Your task to perform on an android device: toggle notification dots Image 0: 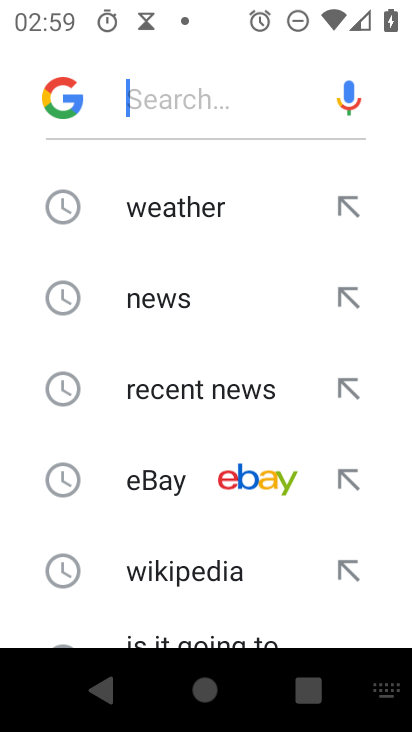
Step 0: press home button
Your task to perform on an android device: toggle notification dots Image 1: 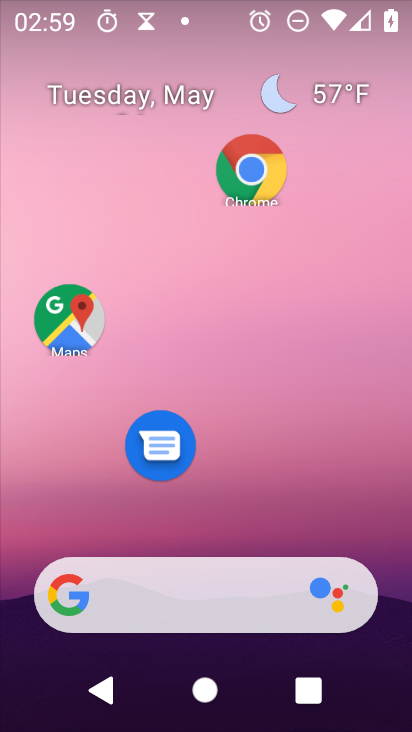
Step 1: drag from (218, 723) to (224, 167)
Your task to perform on an android device: toggle notification dots Image 2: 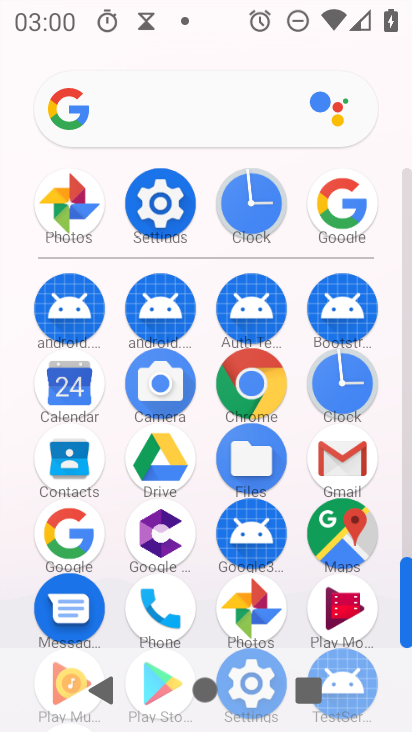
Step 2: click (165, 197)
Your task to perform on an android device: toggle notification dots Image 3: 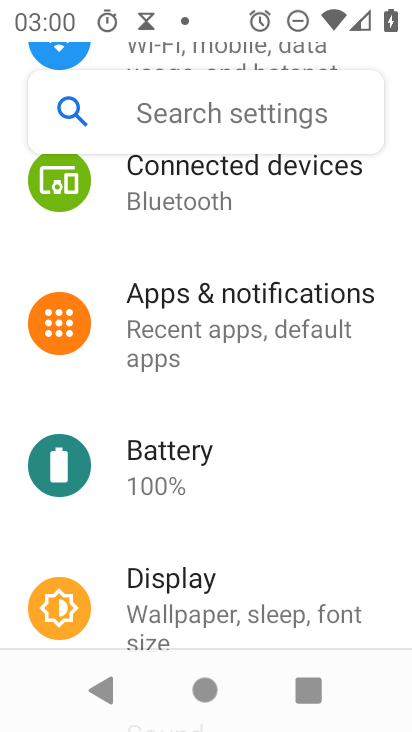
Step 3: click (234, 303)
Your task to perform on an android device: toggle notification dots Image 4: 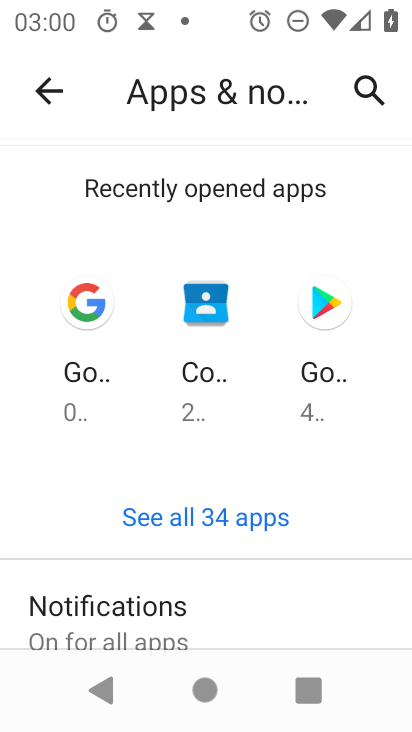
Step 4: drag from (200, 598) to (205, 264)
Your task to perform on an android device: toggle notification dots Image 5: 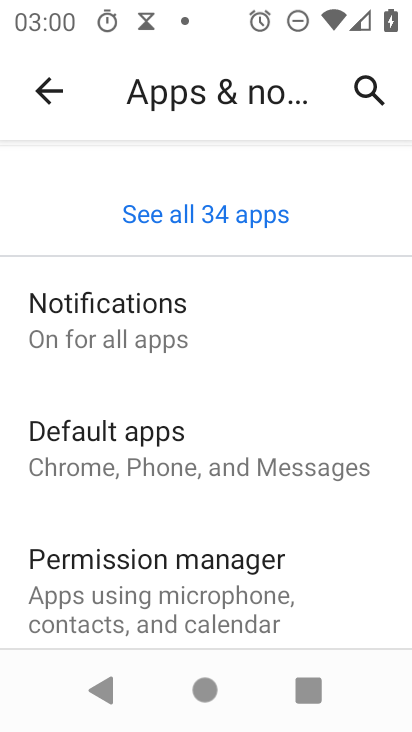
Step 5: click (107, 322)
Your task to perform on an android device: toggle notification dots Image 6: 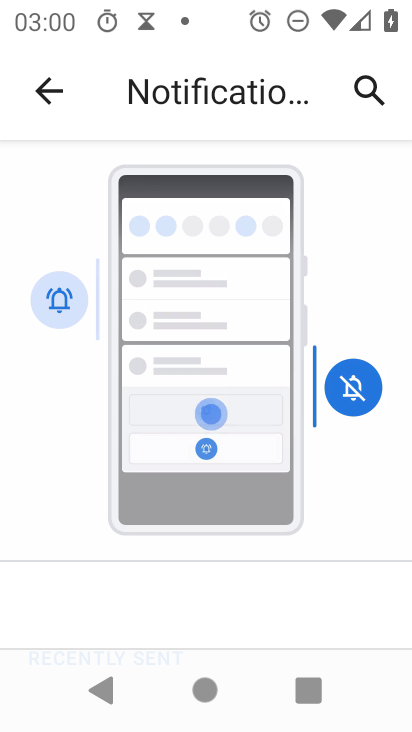
Step 6: drag from (167, 630) to (172, 311)
Your task to perform on an android device: toggle notification dots Image 7: 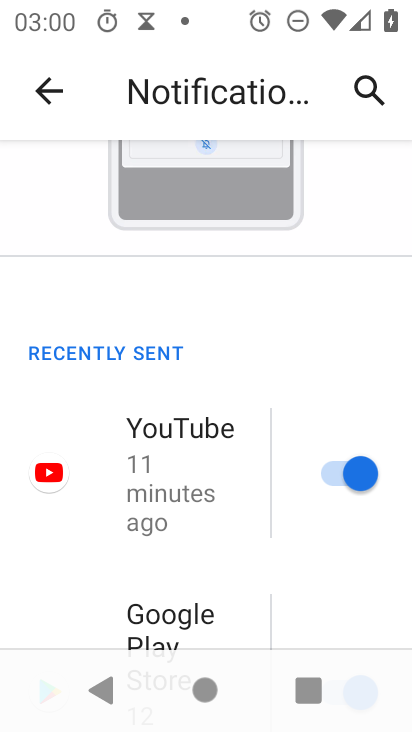
Step 7: drag from (190, 614) to (190, 299)
Your task to perform on an android device: toggle notification dots Image 8: 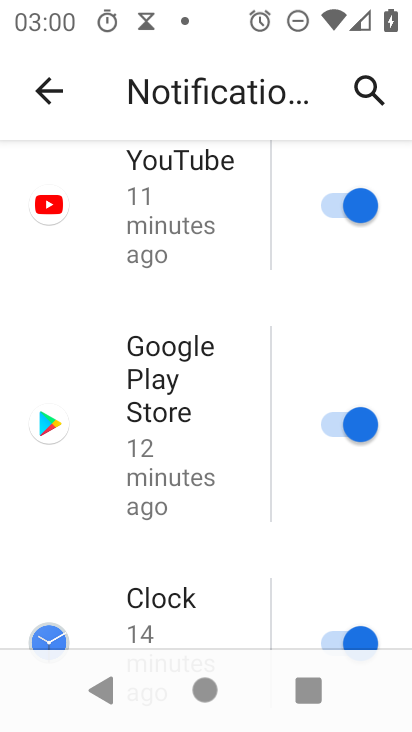
Step 8: drag from (204, 630) to (204, 357)
Your task to perform on an android device: toggle notification dots Image 9: 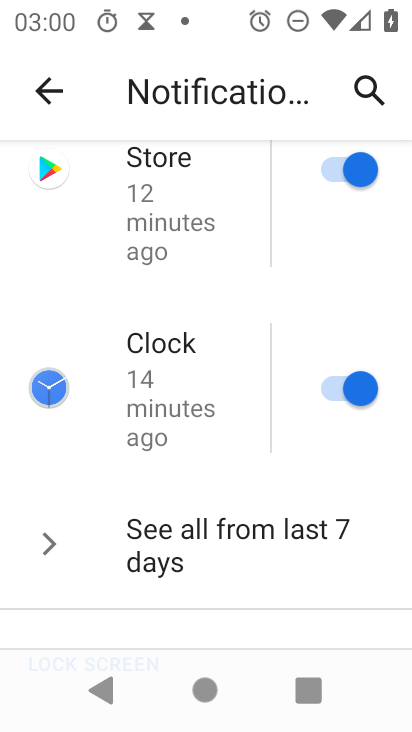
Step 9: drag from (227, 609) to (226, 481)
Your task to perform on an android device: toggle notification dots Image 10: 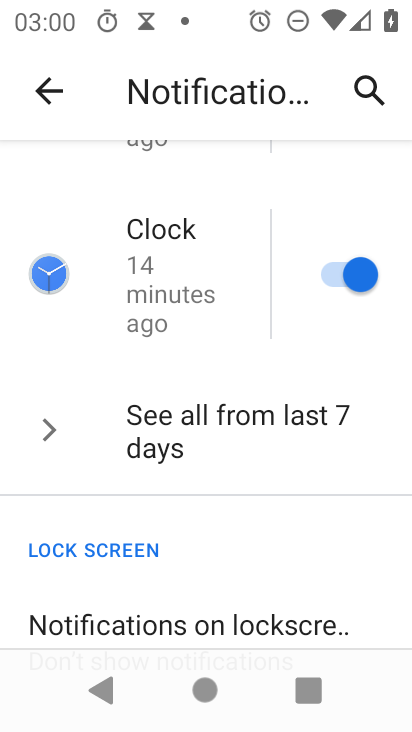
Step 10: drag from (223, 596) to (220, 416)
Your task to perform on an android device: toggle notification dots Image 11: 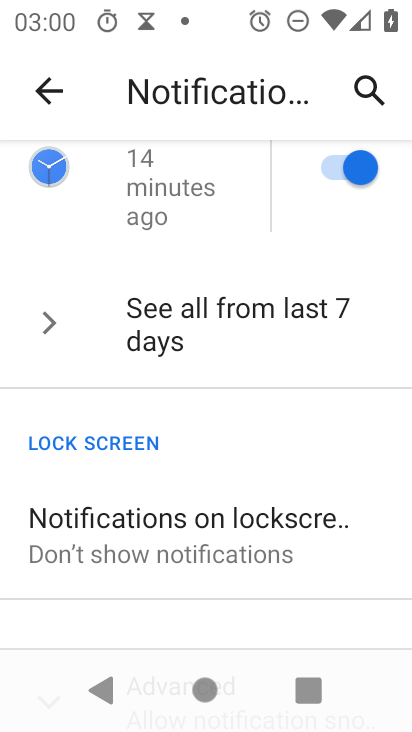
Step 11: drag from (214, 601) to (221, 263)
Your task to perform on an android device: toggle notification dots Image 12: 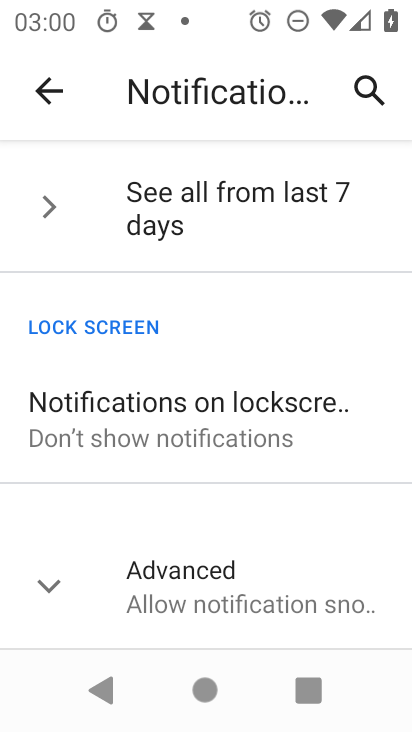
Step 12: click (203, 577)
Your task to perform on an android device: toggle notification dots Image 13: 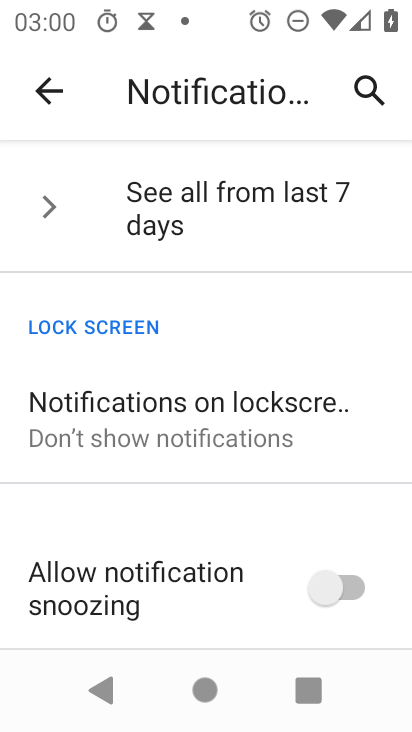
Step 13: drag from (201, 616) to (209, 384)
Your task to perform on an android device: toggle notification dots Image 14: 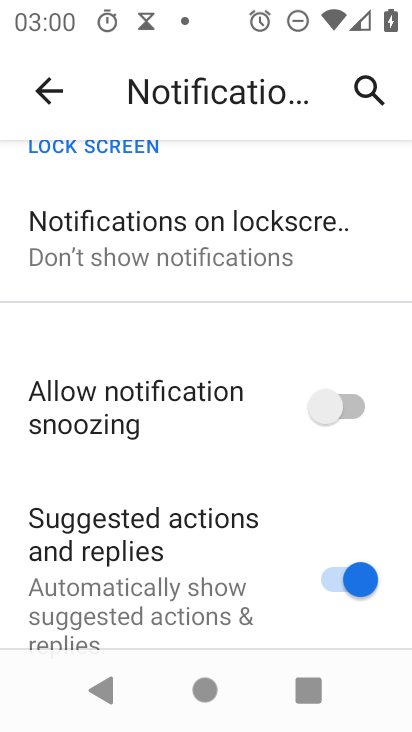
Step 14: drag from (220, 575) to (202, 288)
Your task to perform on an android device: toggle notification dots Image 15: 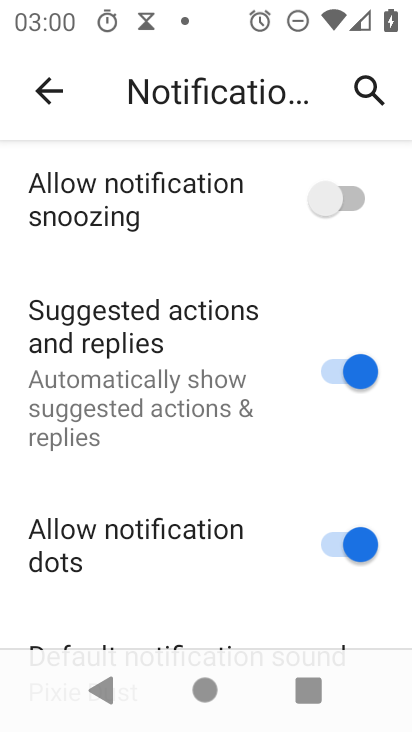
Step 15: click (345, 549)
Your task to perform on an android device: toggle notification dots Image 16: 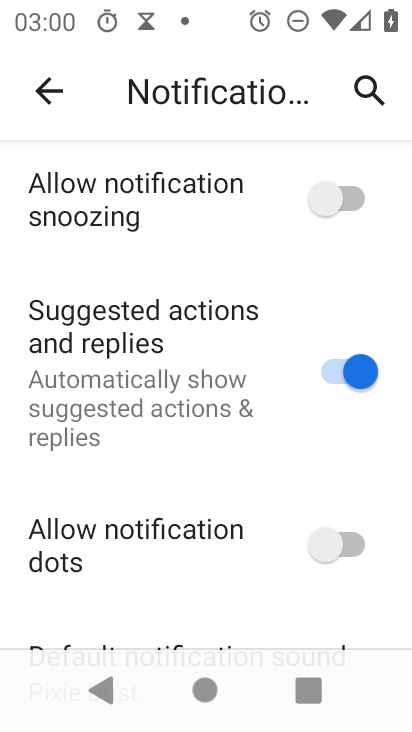
Step 16: task complete